Your task to perform on an android device: allow notifications from all sites in the chrome app Image 0: 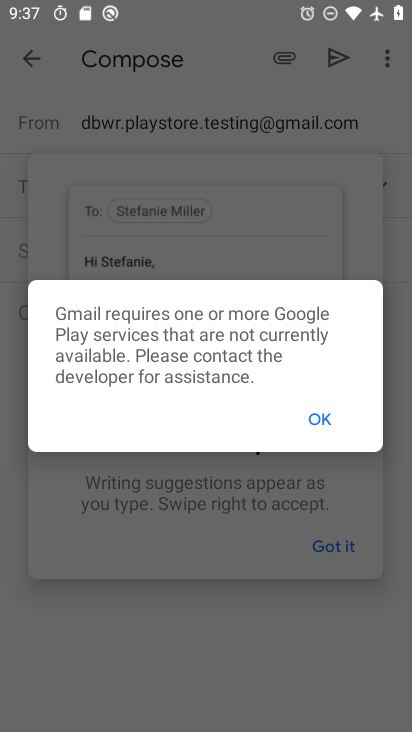
Step 0: press home button
Your task to perform on an android device: allow notifications from all sites in the chrome app Image 1: 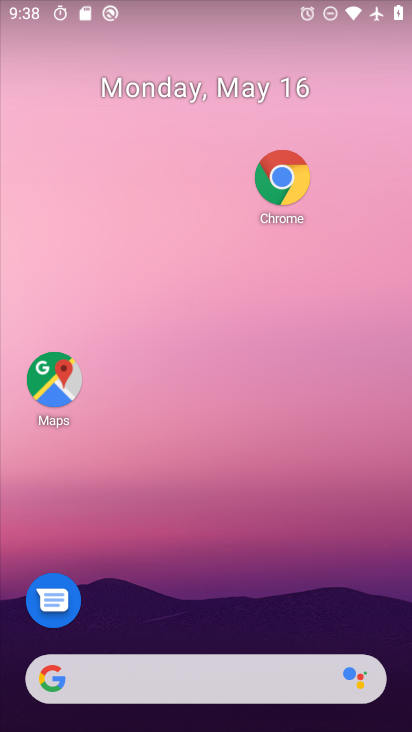
Step 1: click (284, 180)
Your task to perform on an android device: allow notifications from all sites in the chrome app Image 2: 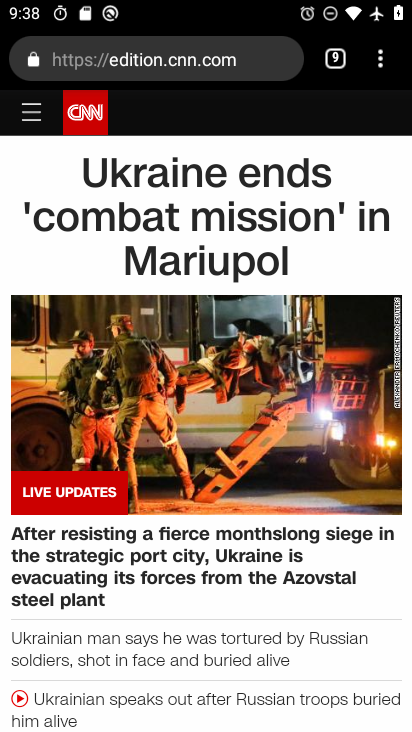
Step 2: drag from (379, 62) to (235, 643)
Your task to perform on an android device: allow notifications from all sites in the chrome app Image 3: 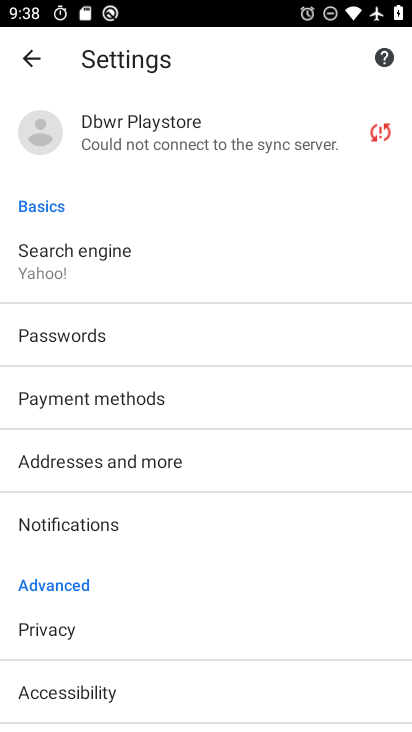
Step 3: drag from (222, 616) to (310, 189)
Your task to perform on an android device: allow notifications from all sites in the chrome app Image 4: 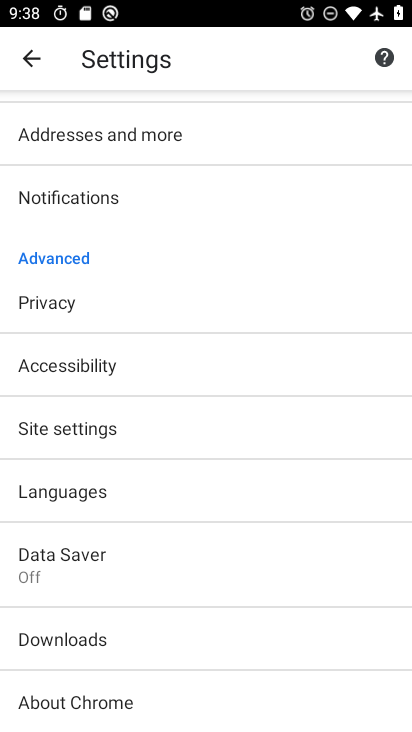
Step 4: click (86, 432)
Your task to perform on an android device: allow notifications from all sites in the chrome app Image 5: 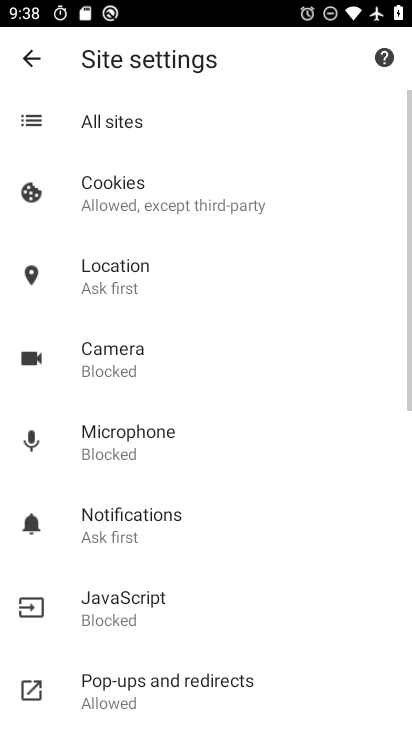
Step 5: click (135, 525)
Your task to perform on an android device: allow notifications from all sites in the chrome app Image 6: 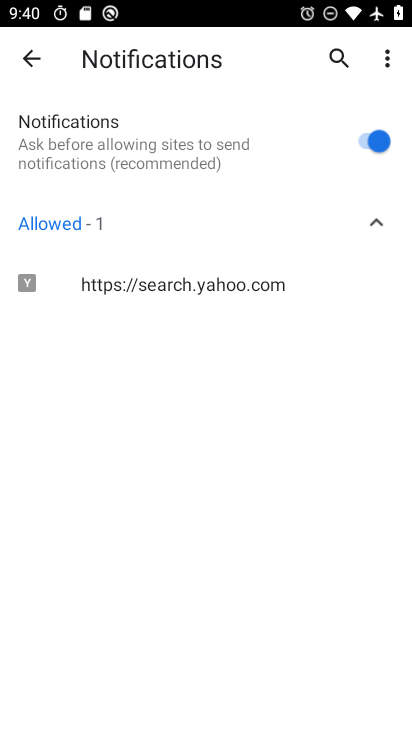
Step 6: task complete